Your task to perform on an android device: Turn off the flashlight Image 0: 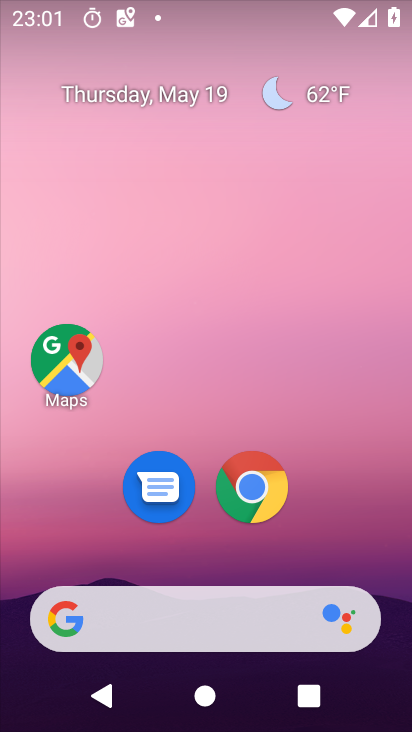
Step 0: drag from (335, 518) to (278, 145)
Your task to perform on an android device: Turn off the flashlight Image 1: 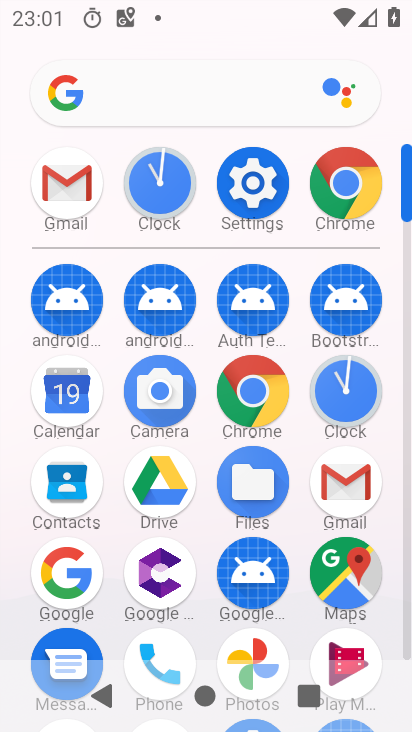
Step 1: click (252, 193)
Your task to perform on an android device: Turn off the flashlight Image 2: 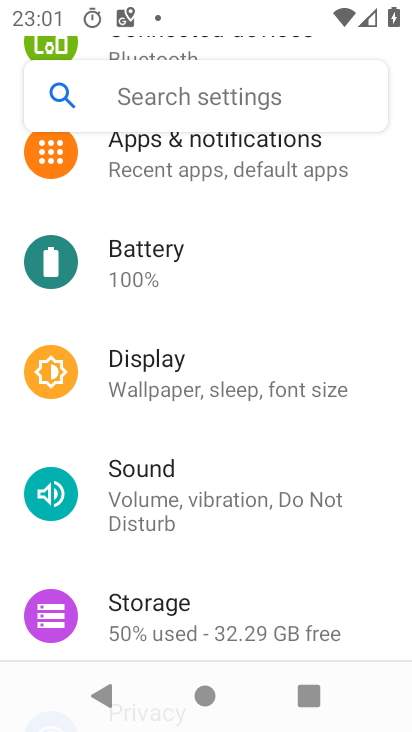
Step 2: click (260, 168)
Your task to perform on an android device: Turn off the flashlight Image 3: 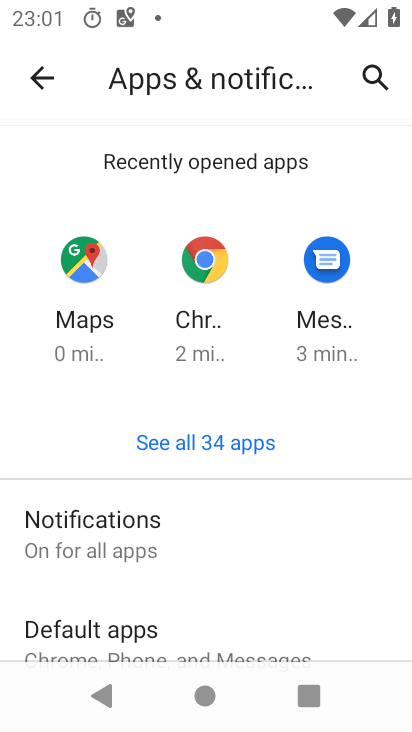
Step 3: drag from (279, 578) to (246, 300)
Your task to perform on an android device: Turn off the flashlight Image 4: 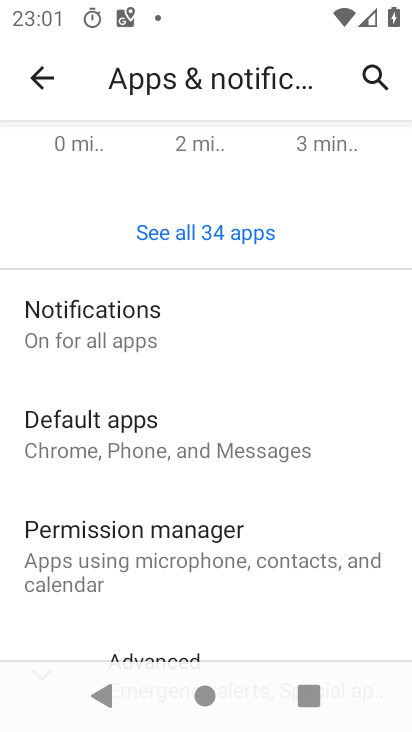
Step 4: drag from (276, 604) to (268, 333)
Your task to perform on an android device: Turn off the flashlight Image 5: 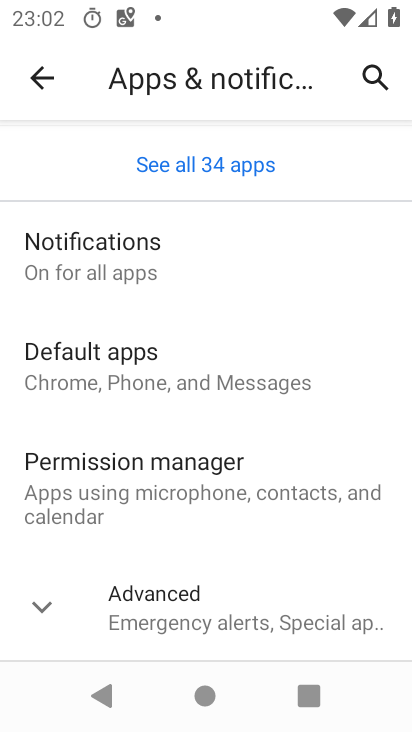
Step 5: click (240, 602)
Your task to perform on an android device: Turn off the flashlight Image 6: 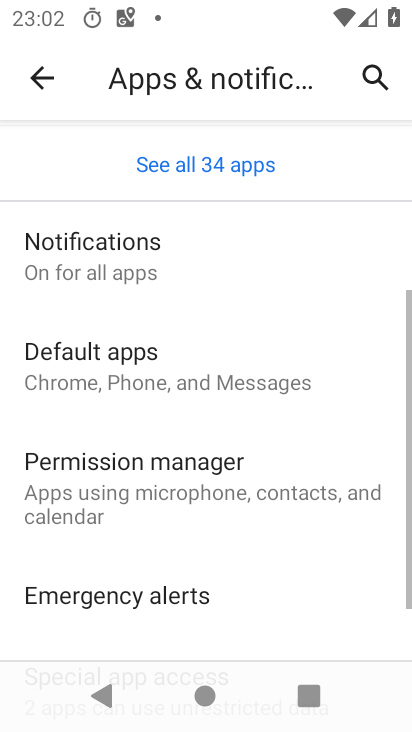
Step 6: drag from (309, 571) to (273, 317)
Your task to perform on an android device: Turn off the flashlight Image 7: 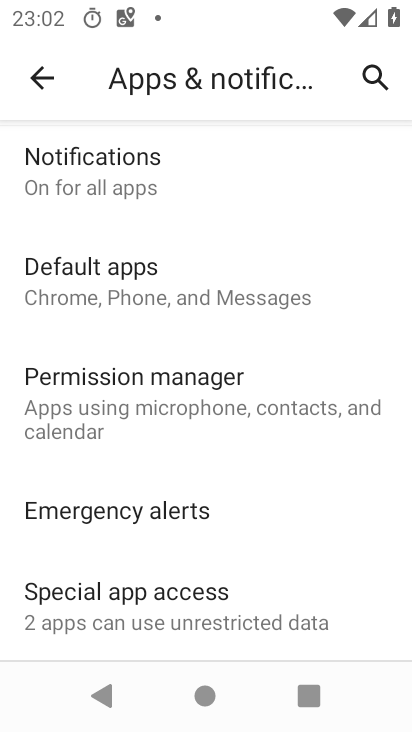
Step 7: click (213, 617)
Your task to perform on an android device: Turn off the flashlight Image 8: 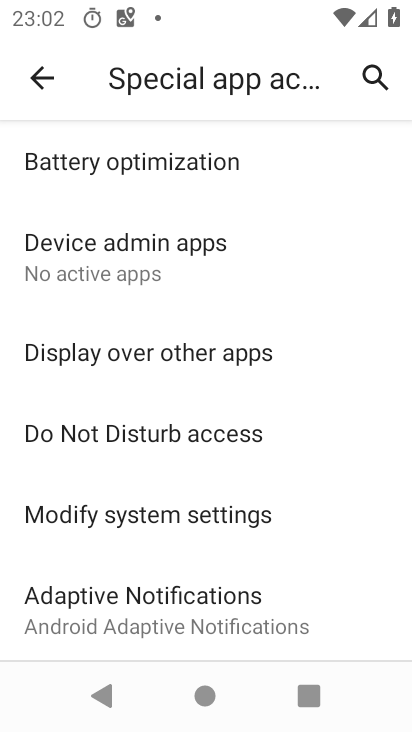
Step 8: task complete